Your task to perform on an android device: turn on priority inbox in the gmail app Image 0: 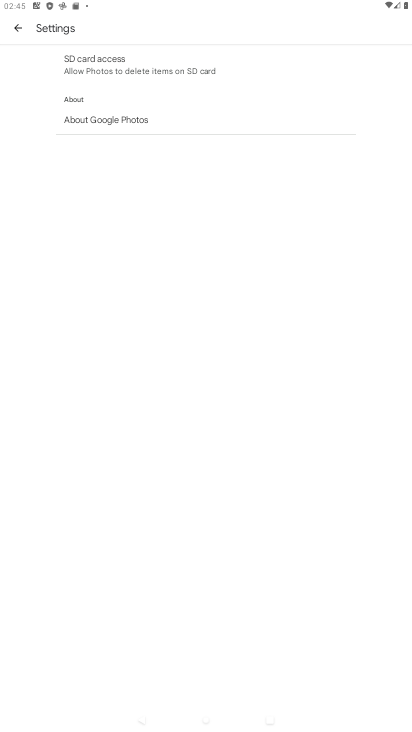
Step 0: press home button
Your task to perform on an android device: turn on priority inbox in the gmail app Image 1: 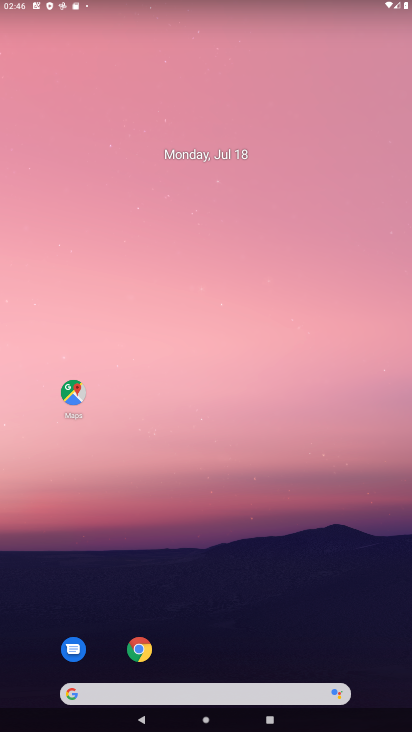
Step 1: drag from (180, 714) to (166, 80)
Your task to perform on an android device: turn on priority inbox in the gmail app Image 2: 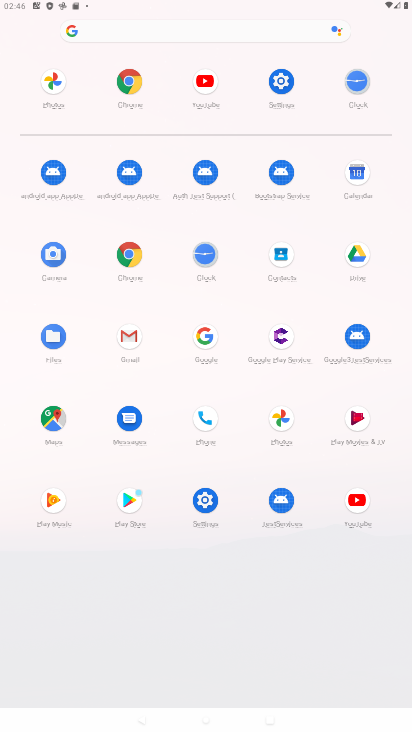
Step 2: click (129, 337)
Your task to perform on an android device: turn on priority inbox in the gmail app Image 3: 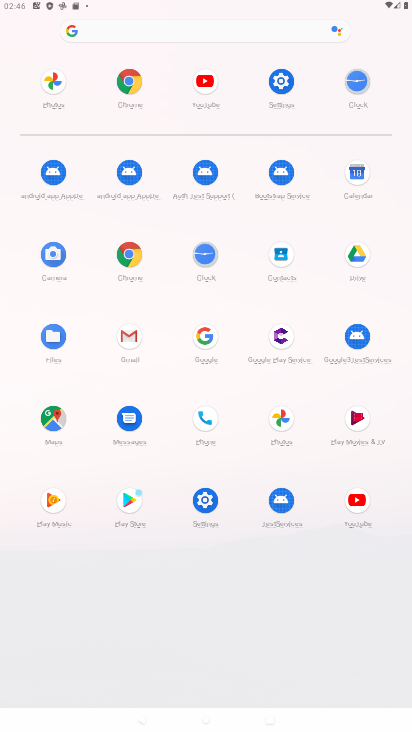
Step 3: click (129, 337)
Your task to perform on an android device: turn on priority inbox in the gmail app Image 4: 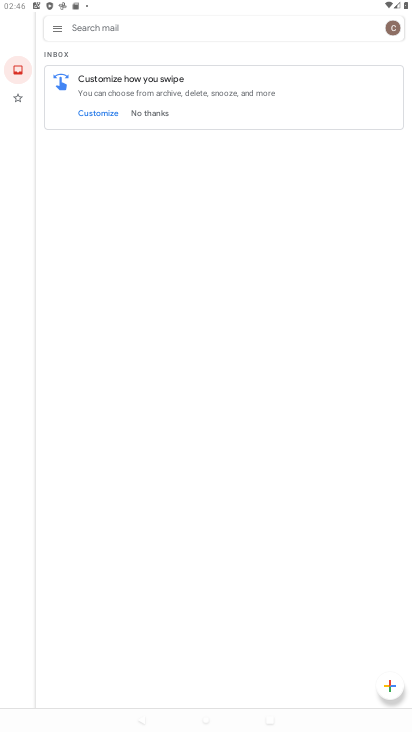
Step 4: click (61, 23)
Your task to perform on an android device: turn on priority inbox in the gmail app Image 5: 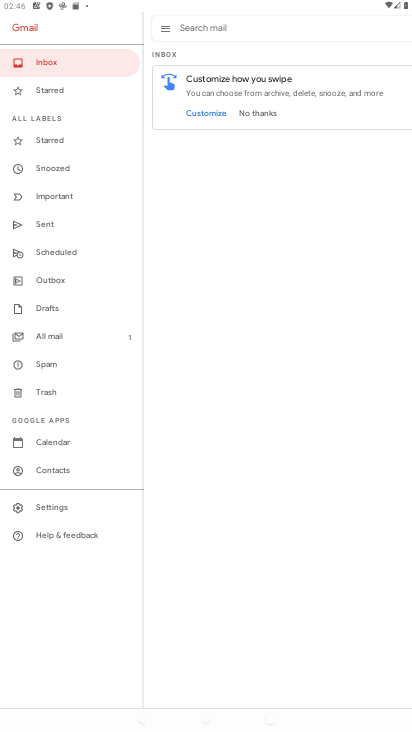
Step 5: click (43, 505)
Your task to perform on an android device: turn on priority inbox in the gmail app Image 6: 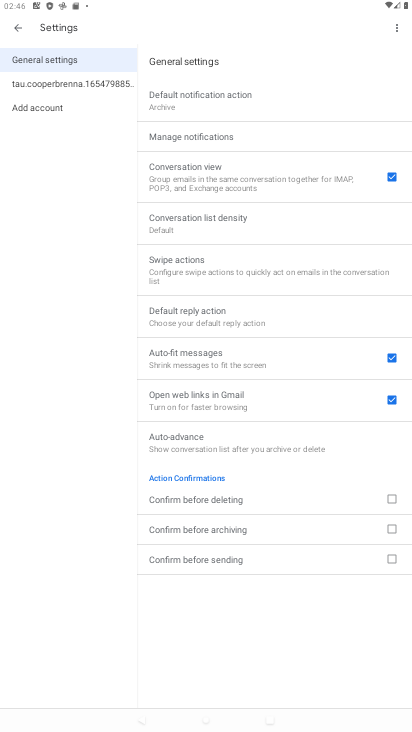
Step 6: click (78, 90)
Your task to perform on an android device: turn on priority inbox in the gmail app Image 7: 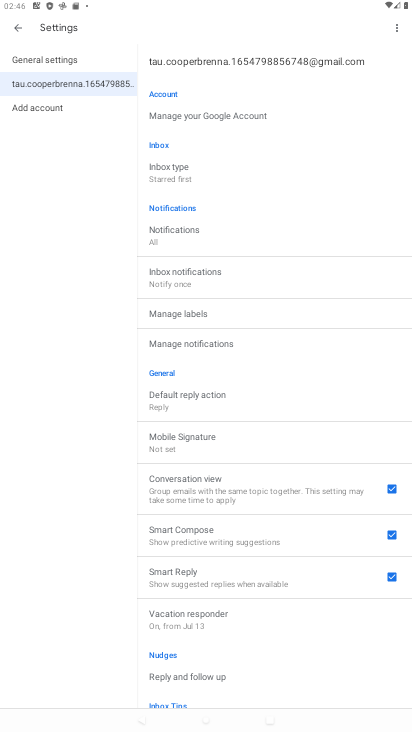
Step 7: click (162, 170)
Your task to perform on an android device: turn on priority inbox in the gmail app Image 8: 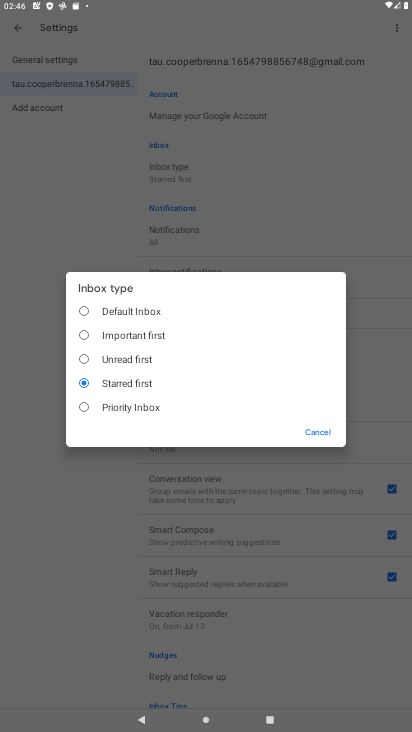
Step 8: click (127, 411)
Your task to perform on an android device: turn on priority inbox in the gmail app Image 9: 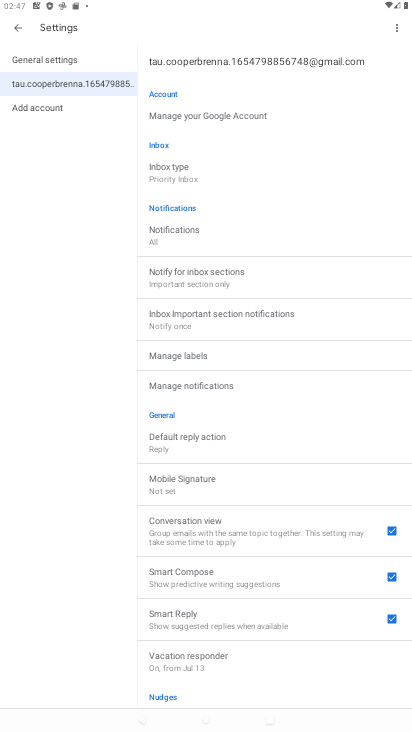
Step 9: task complete